Your task to perform on an android device: Search for pizza restaurants on Maps Image 0: 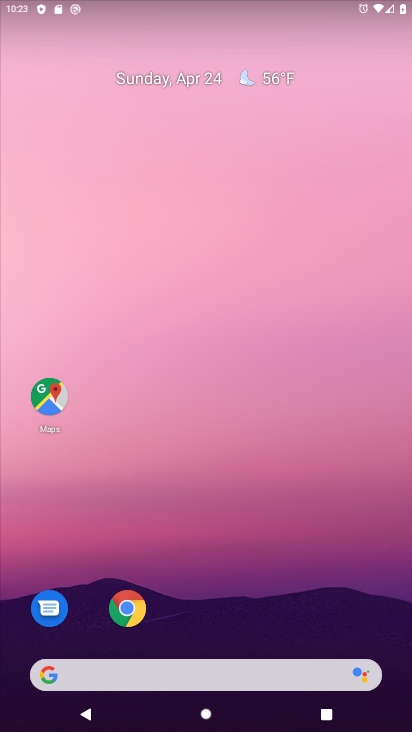
Step 0: click (41, 376)
Your task to perform on an android device: Search for pizza restaurants on Maps Image 1: 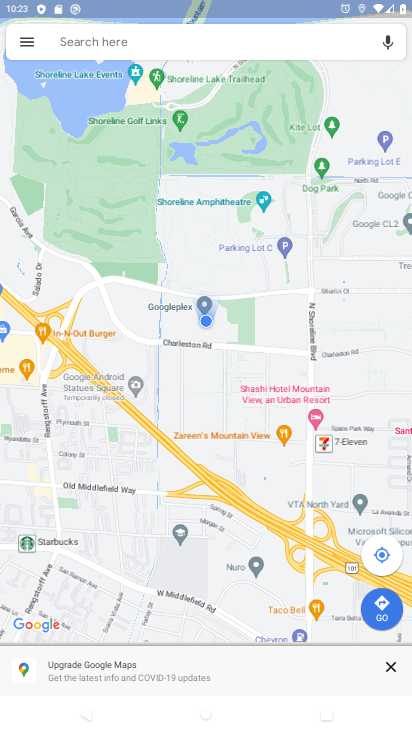
Step 1: click (297, 33)
Your task to perform on an android device: Search for pizza restaurants on Maps Image 2: 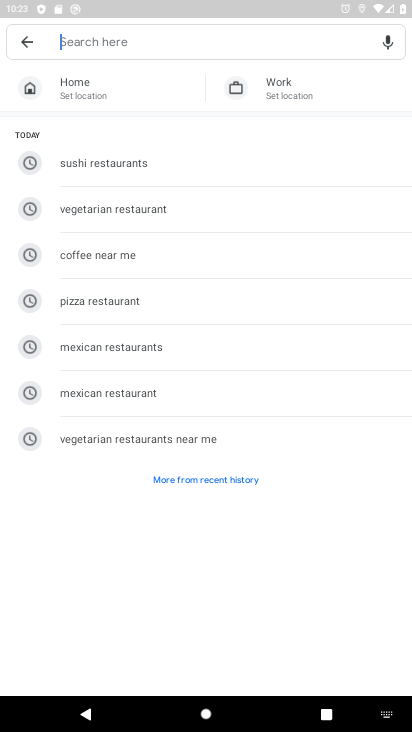
Step 2: click (102, 304)
Your task to perform on an android device: Search for pizza restaurants on Maps Image 3: 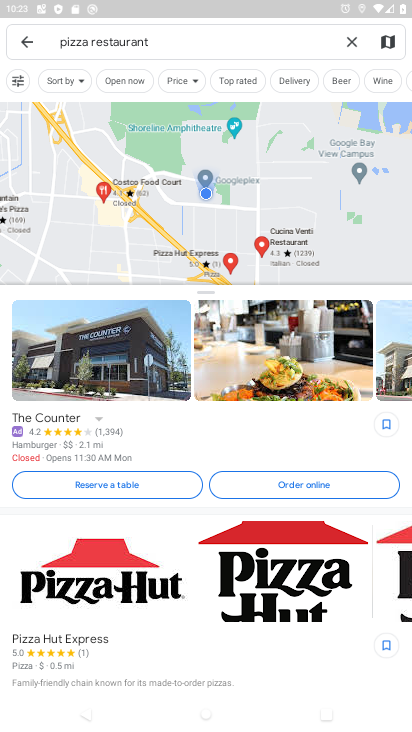
Step 3: task complete